Your task to perform on an android device: Open calendar and show me the fourth week of next month Image 0: 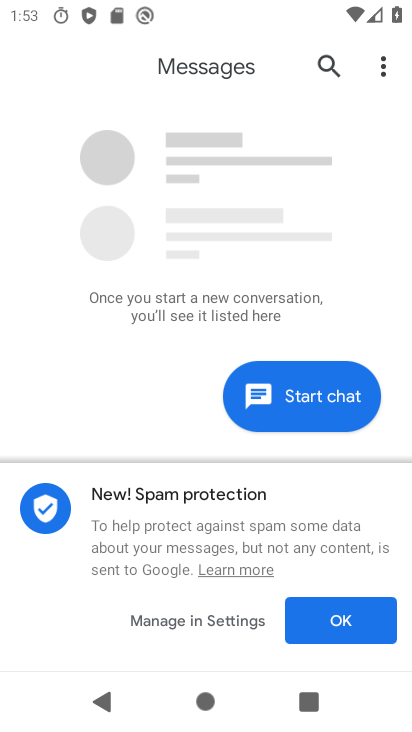
Step 0: press home button
Your task to perform on an android device: Open calendar and show me the fourth week of next month Image 1: 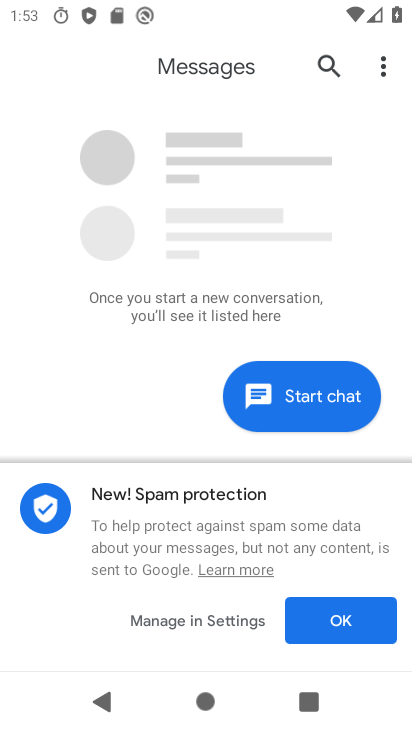
Step 1: press home button
Your task to perform on an android device: Open calendar and show me the fourth week of next month Image 2: 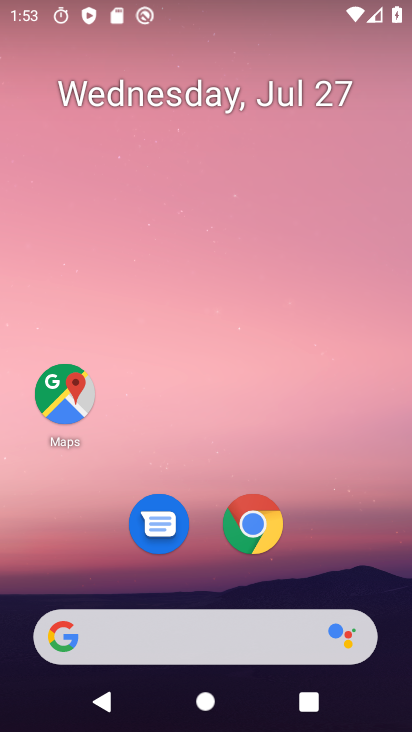
Step 2: drag from (310, 550) to (319, 0)
Your task to perform on an android device: Open calendar and show me the fourth week of next month Image 3: 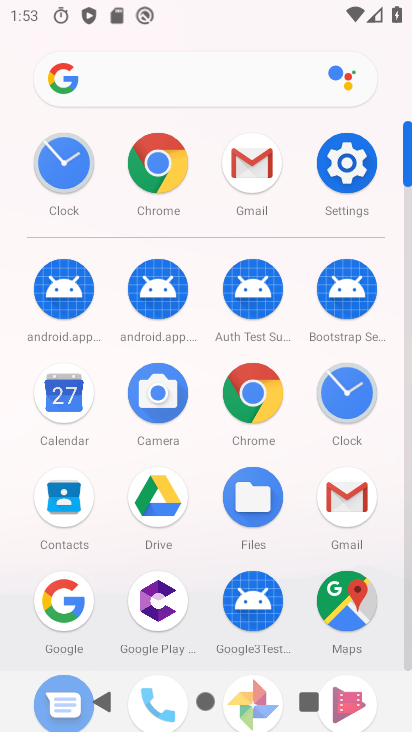
Step 3: click (64, 397)
Your task to perform on an android device: Open calendar and show me the fourth week of next month Image 4: 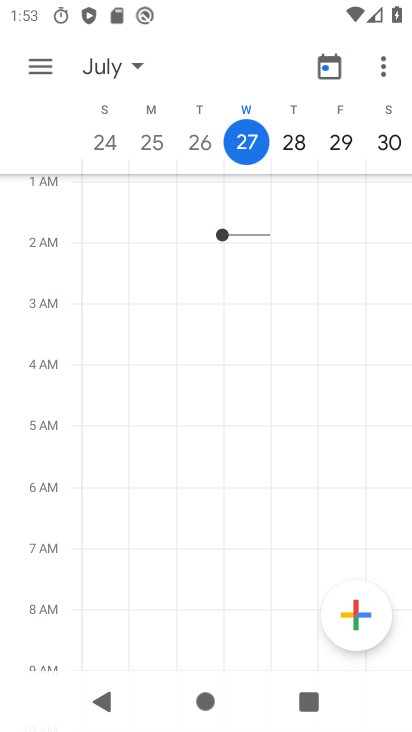
Step 4: task complete